Your task to perform on an android device: move an email to a new category in the gmail app Image 0: 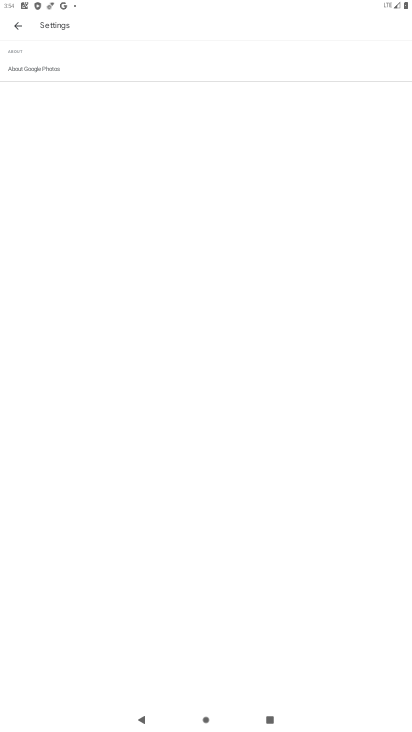
Step 0: press home button
Your task to perform on an android device: move an email to a new category in the gmail app Image 1: 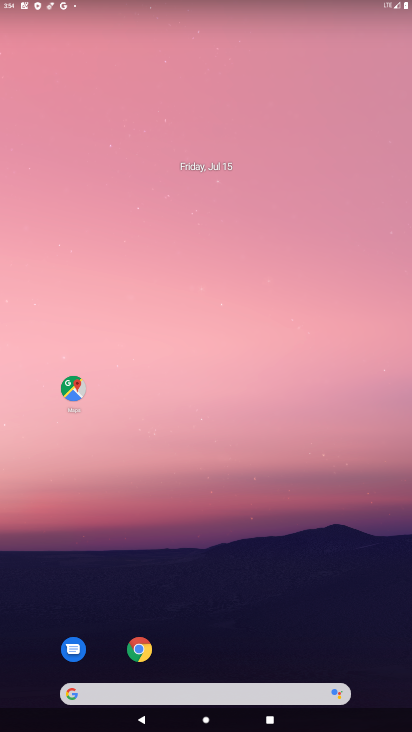
Step 1: drag from (185, 626) to (148, 248)
Your task to perform on an android device: move an email to a new category in the gmail app Image 2: 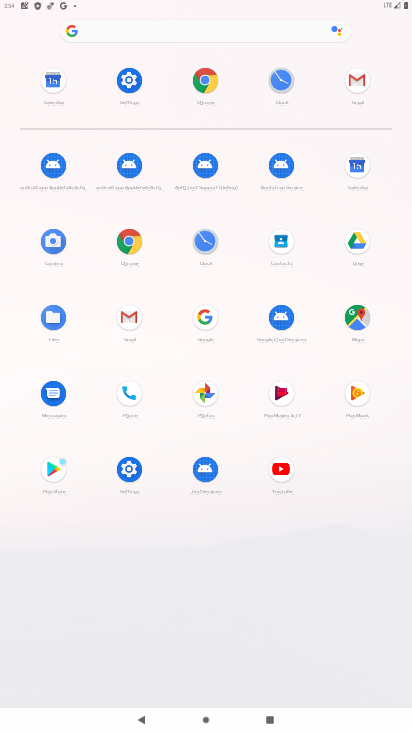
Step 2: click (133, 337)
Your task to perform on an android device: move an email to a new category in the gmail app Image 3: 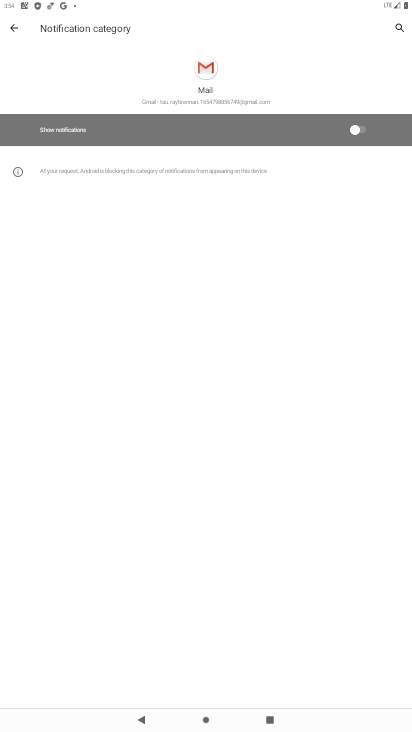
Step 3: click (10, 30)
Your task to perform on an android device: move an email to a new category in the gmail app Image 4: 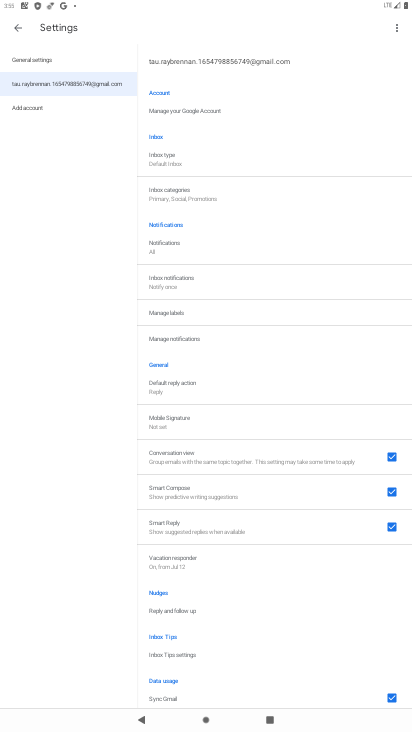
Step 4: click (22, 26)
Your task to perform on an android device: move an email to a new category in the gmail app Image 5: 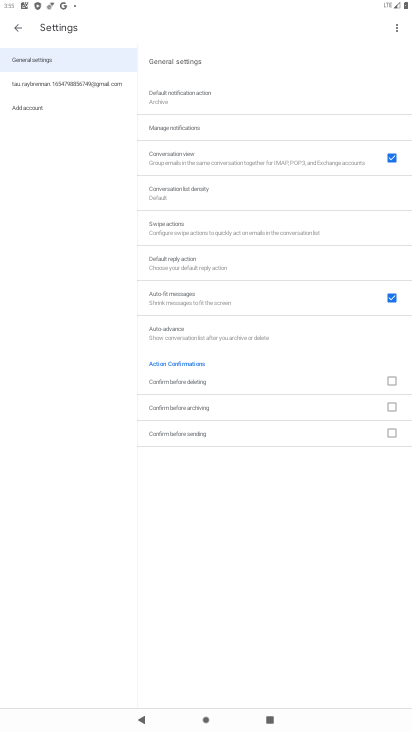
Step 5: click (21, 29)
Your task to perform on an android device: move an email to a new category in the gmail app Image 6: 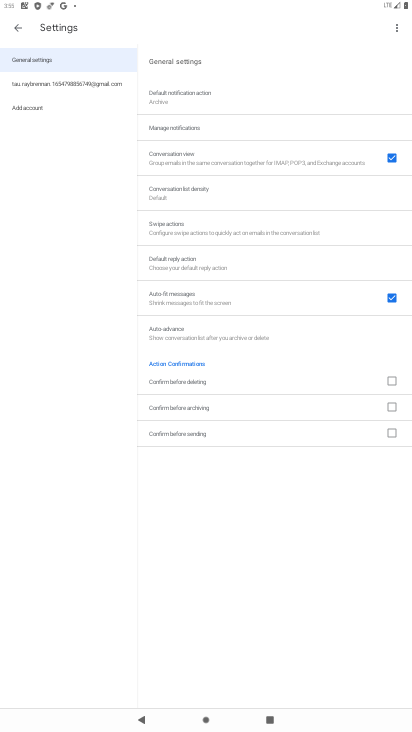
Step 6: click (12, 29)
Your task to perform on an android device: move an email to a new category in the gmail app Image 7: 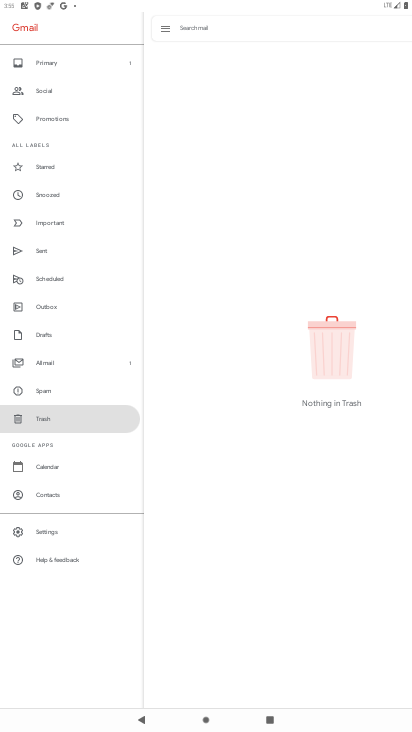
Step 7: task complete